Your task to perform on an android device: Open Wikipedia Image 0: 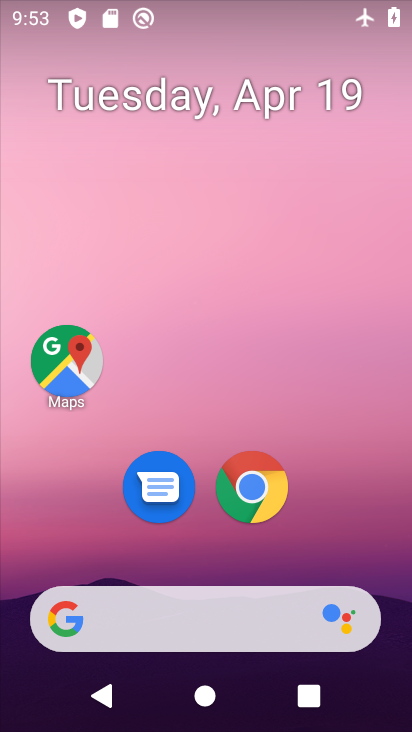
Step 0: drag from (331, 545) to (325, 89)
Your task to perform on an android device: Open Wikipedia Image 1: 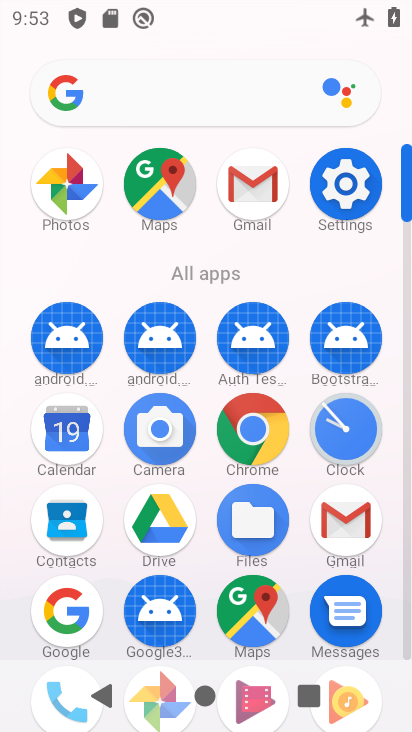
Step 1: click (264, 434)
Your task to perform on an android device: Open Wikipedia Image 2: 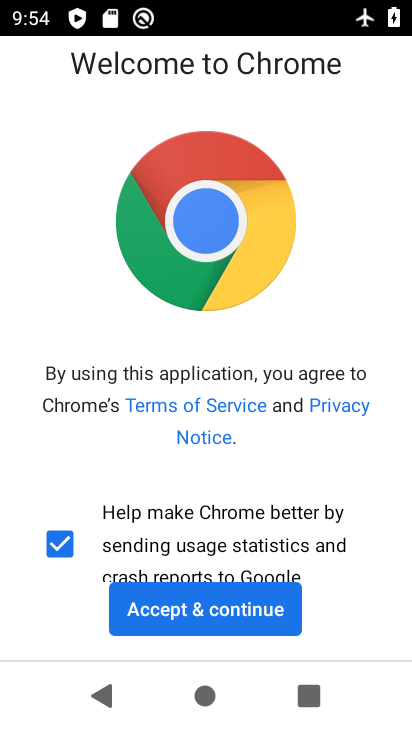
Step 2: click (179, 614)
Your task to perform on an android device: Open Wikipedia Image 3: 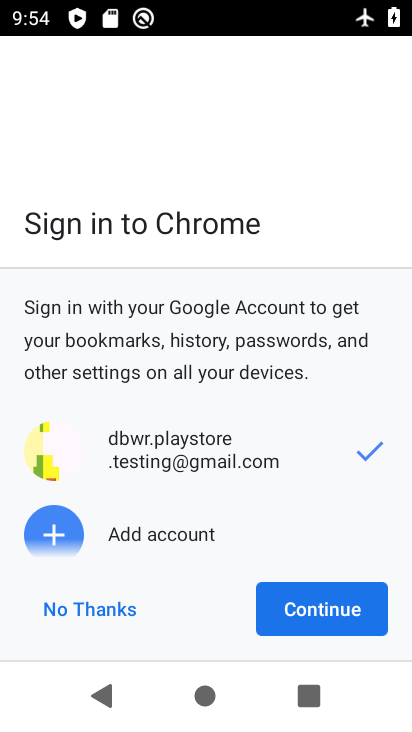
Step 3: click (286, 620)
Your task to perform on an android device: Open Wikipedia Image 4: 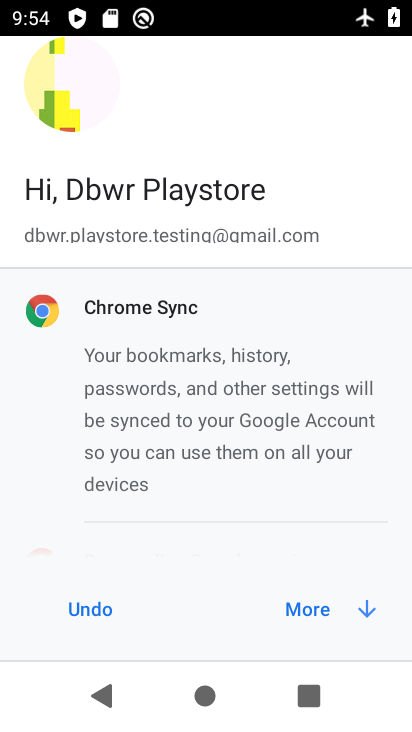
Step 4: click (300, 604)
Your task to perform on an android device: Open Wikipedia Image 5: 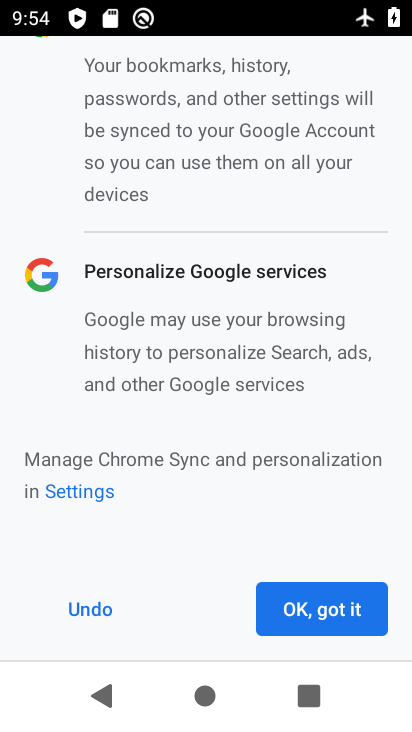
Step 5: click (303, 602)
Your task to perform on an android device: Open Wikipedia Image 6: 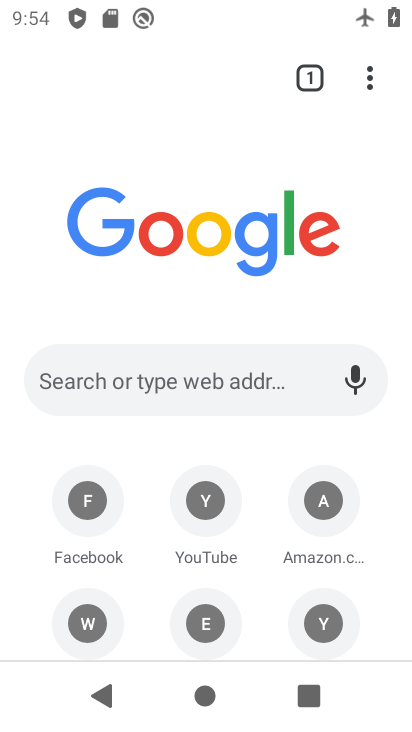
Step 6: click (211, 373)
Your task to perform on an android device: Open Wikipedia Image 7: 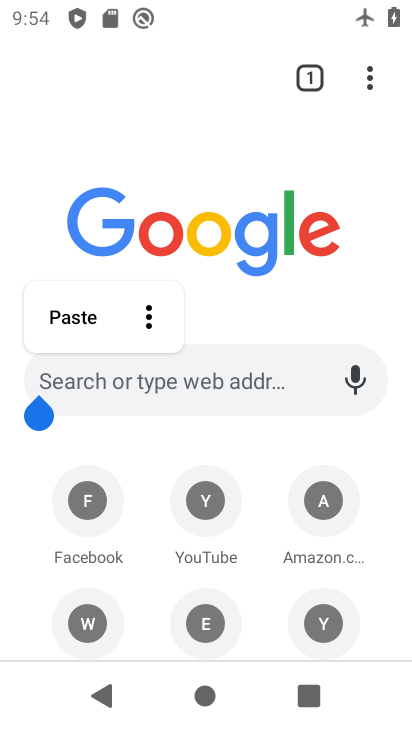
Step 7: click (92, 640)
Your task to perform on an android device: Open Wikipedia Image 8: 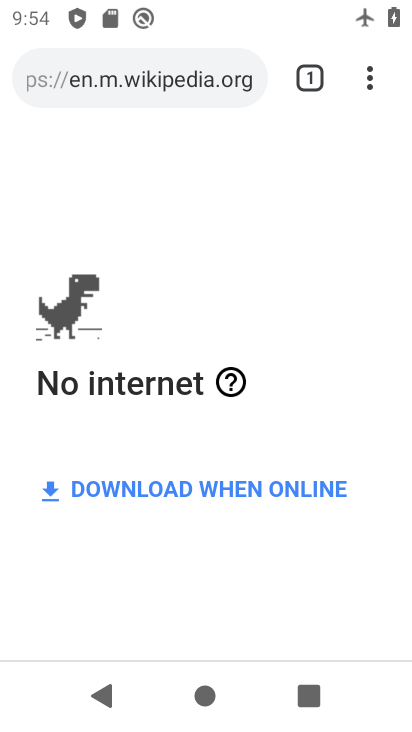
Step 8: task complete